Your task to perform on an android device: Open notification settings Image 0: 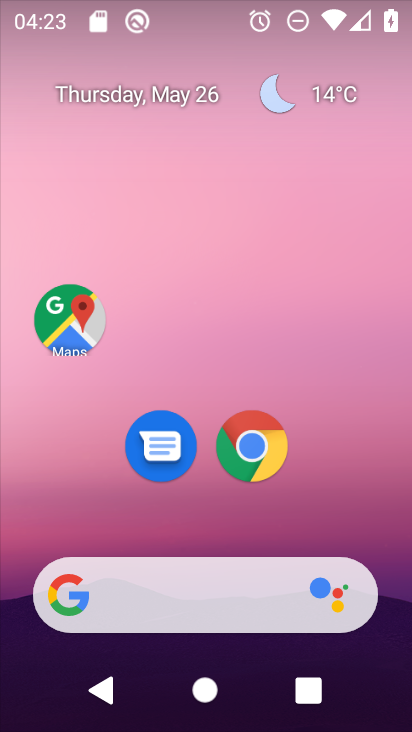
Step 0: drag from (352, 558) to (384, 21)
Your task to perform on an android device: Open notification settings Image 1: 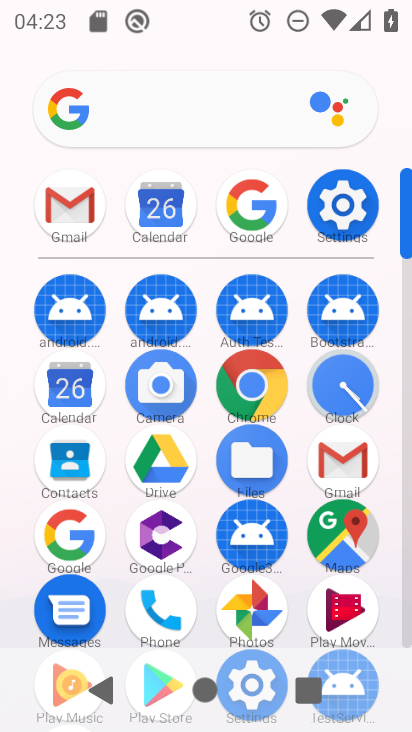
Step 1: click (343, 208)
Your task to perform on an android device: Open notification settings Image 2: 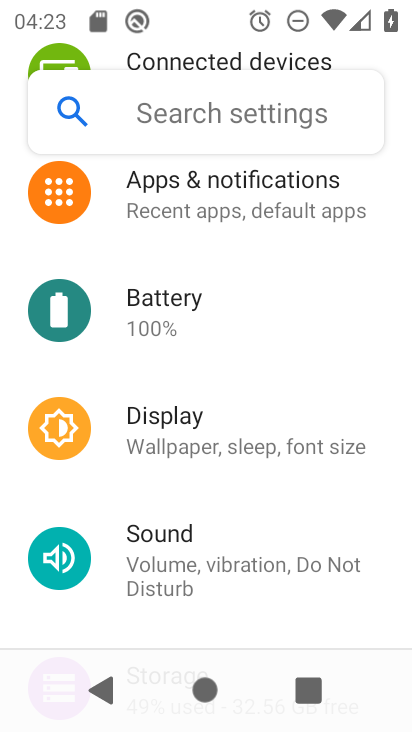
Step 2: click (245, 205)
Your task to perform on an android device: Open notification settings Image 3: 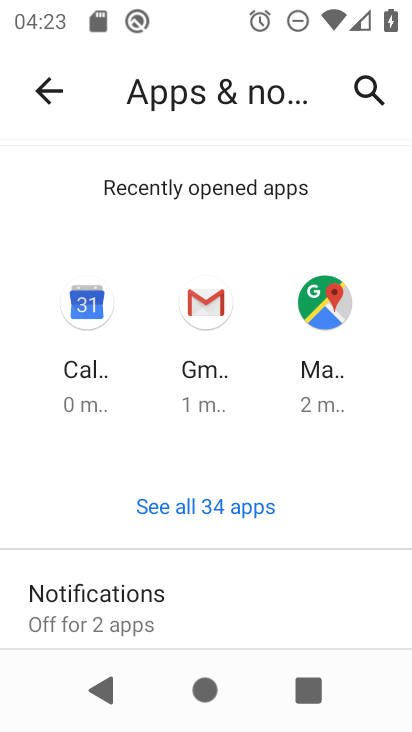
Step 3: task complete